Your task to perform on an android device: Open Yahoo.com Image 0: 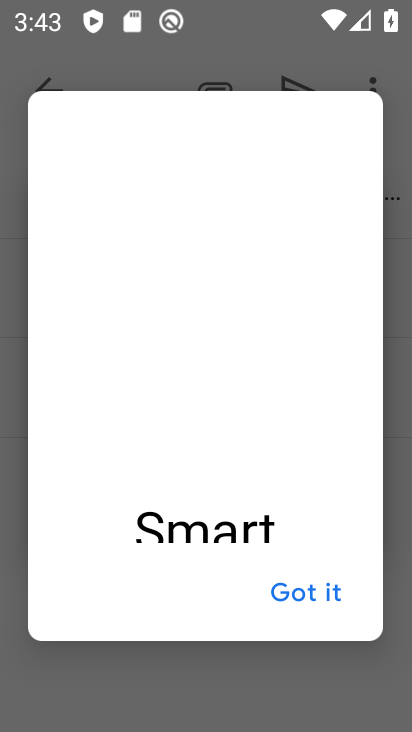
Step 0: press home button
Your task to perform on an android device: Open Yahoo.com Image 1: 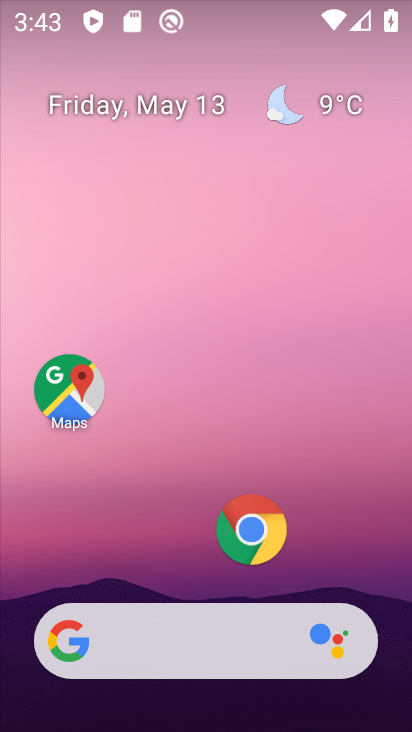
Step 1: click (244, 528)
Your task to perform on an android device: Open Yahoo.com Image 2: 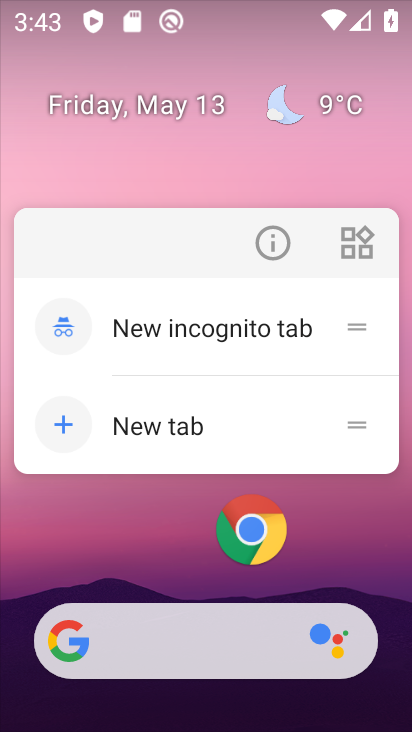
Step 2: click (235, 530)
Your task to perform on an android device: Open Yahoo.com Image 3: 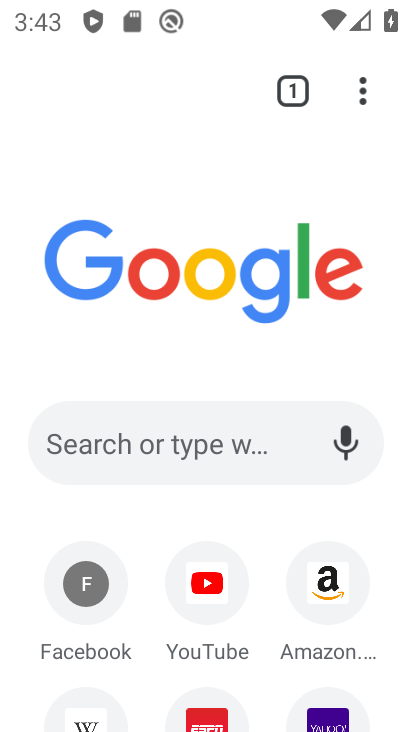
Step 3: click (330, 705)
Your task to perform on an android device: Open Yahoo.com Image 4: 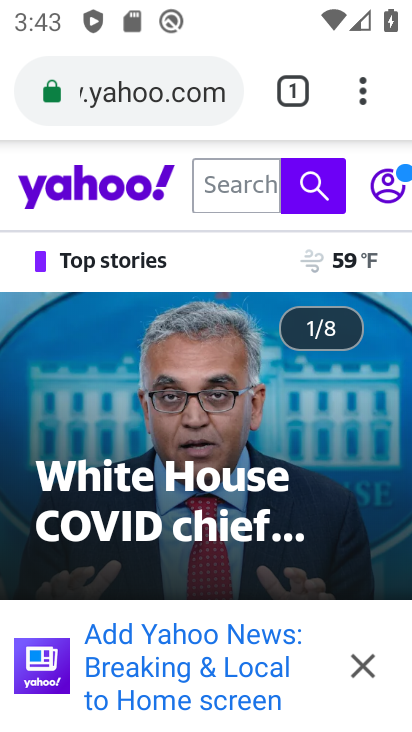
Step 4: task complete